Your task to perform on an android device: turn on data saver in the chrome app Image 0: 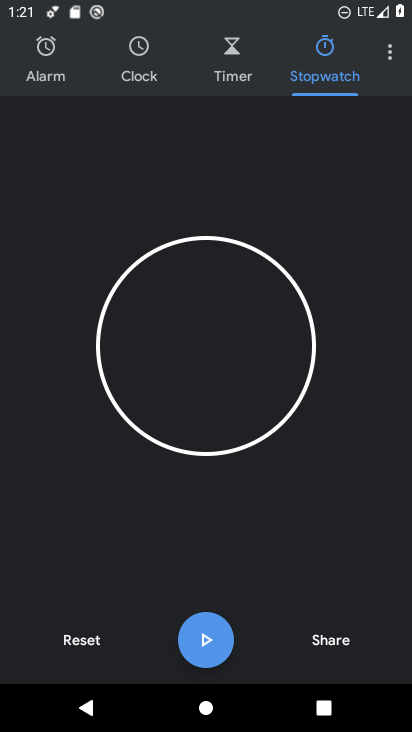
Step 0: press home button
Your task to perform on an android device: turn on data saver in the chrome app Image 1: 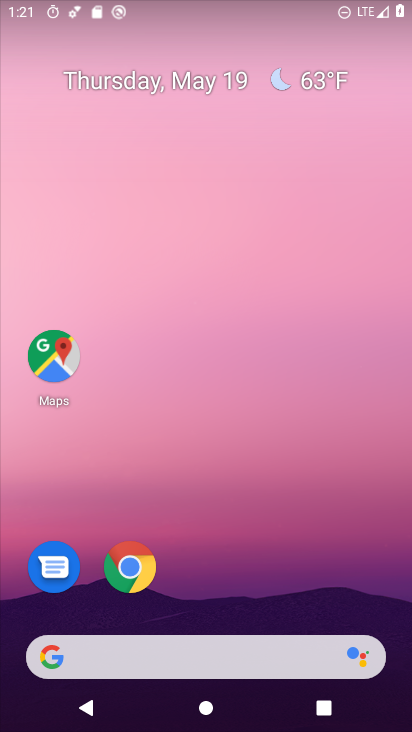
Step 1: click (122, 573)
Your task to perform on an android device: turn on data saver in the chrome app Image 2: 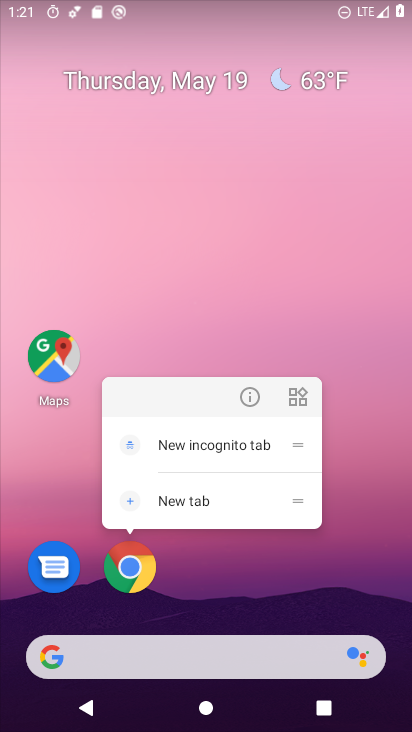
Step 2: click (128, 577)
Your task to perform on an android device: turn on data saver in the chrome app Image 3: 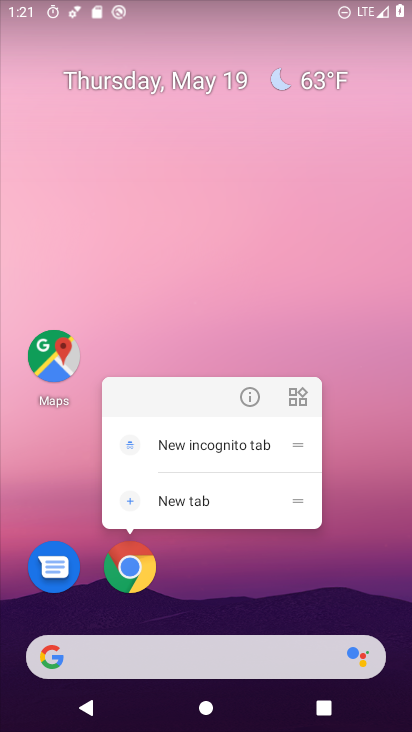
Step 3: click (132, 571)
Your task to perform on an android device: turn on data saver in the chrome app Image 4: 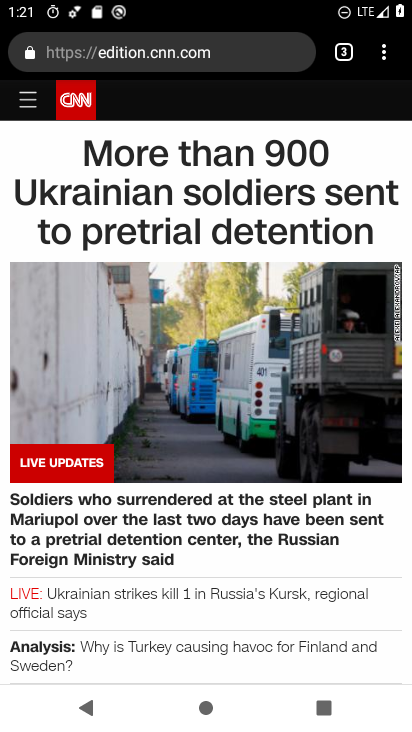
Step 4: drag from (386, 60) to (214, 578)
Your task to perform on an android device: turn on data saver in the chrome app Image 5: 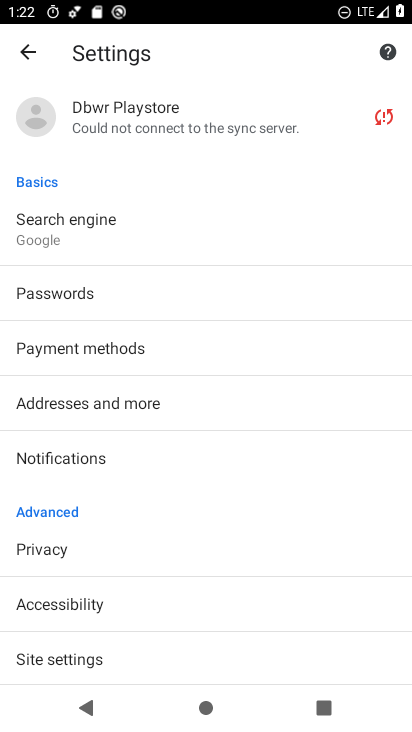
Step 5: drag from (169, 632) to (316, 379)
Your task to perform on an android device: turn on data saver in the chrome app Image 6: 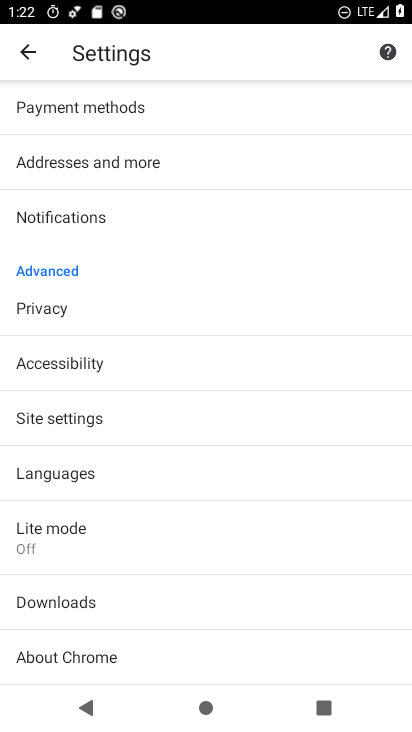
Step 6: click (74, 546)
Your task to perform on an android device: turn on data saver in the chrome app Image 7: 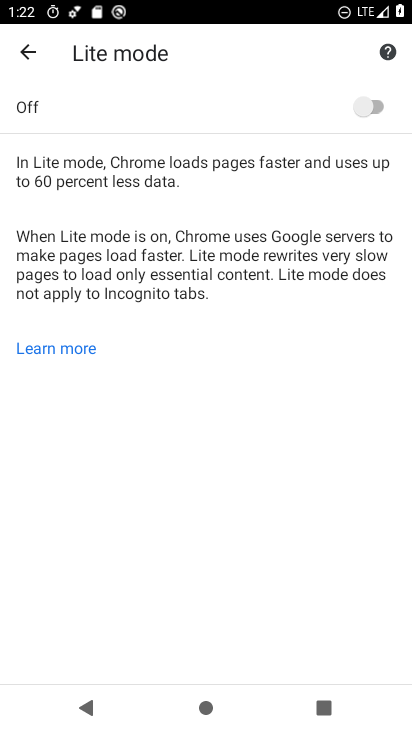
Step 7: click (373, 109)
Your task to perform on an android device: turn on data saver in the chrome app Image 8: 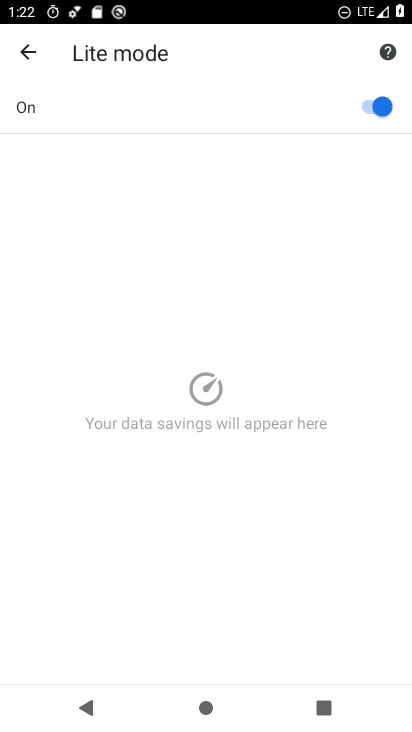
Step 8: task complete